Your task to perform on an android device: Go to calendar. Show me events next week Image 0: 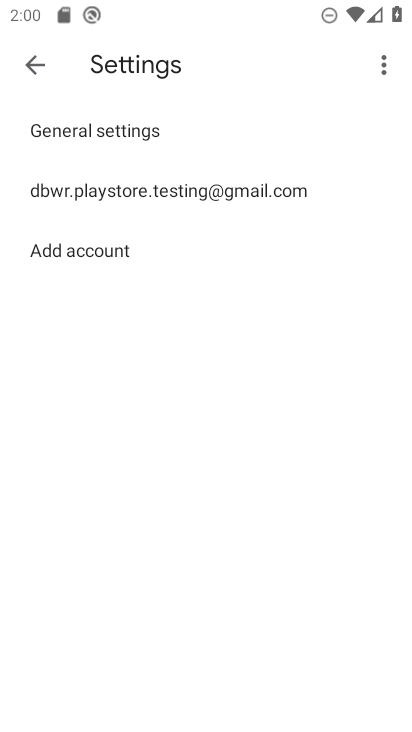
Step 0: press home button
Your task to perform on an android device: Go to calendar. Show me events next week Image 1: 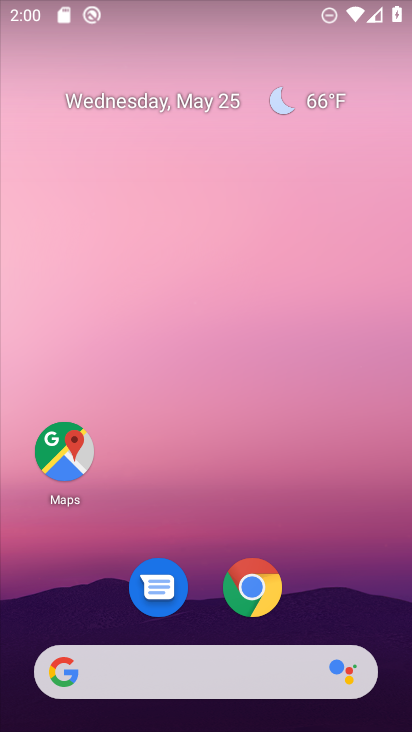
Step 1: drag from (346, 599) to (362, 227)
Your task to perform on an android device: Go to calendar. Show me events next week Image 2: 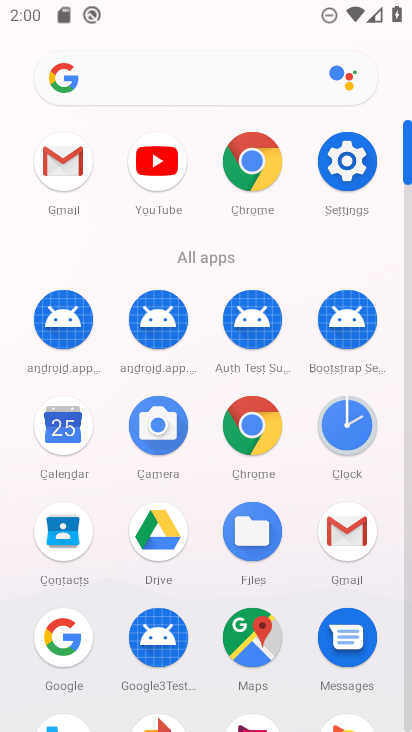
Step 2: click (357, 444)
Your task to perform on an android device: Go to calendar. Show me events next week Image 3: 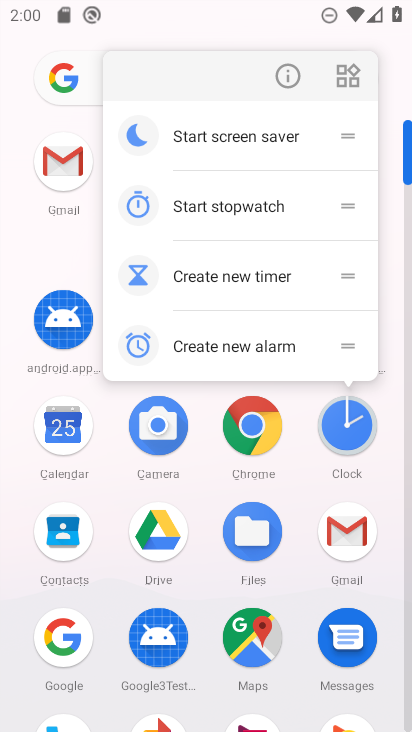
Step 3: click (348, 427)
Your task to perform on an android device: Go to calendar. Show me events next week Image 4: 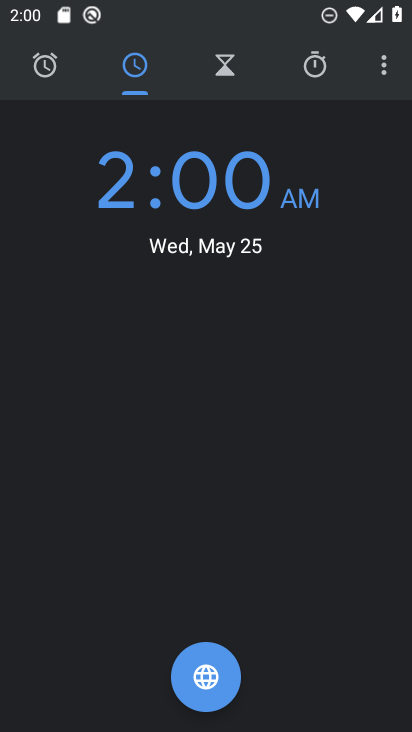
Step 4: press back button
Your task to perform on an android device: Go to calendar. Show me events next week Image 5: 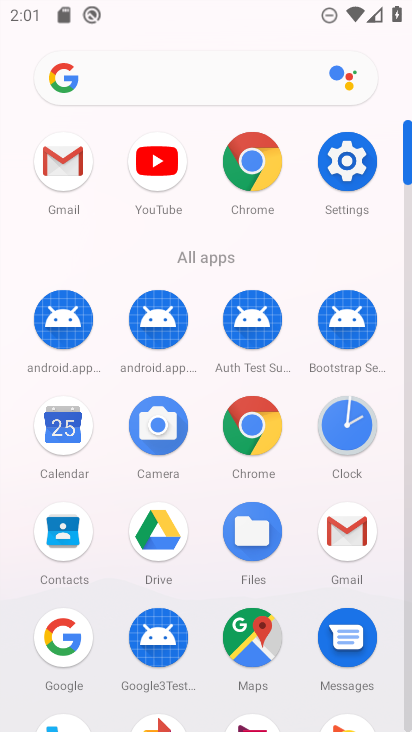
Step 5: click (73, 458)
Your task to perform on an android device: Go to calendar. Show me events next week Image 6: 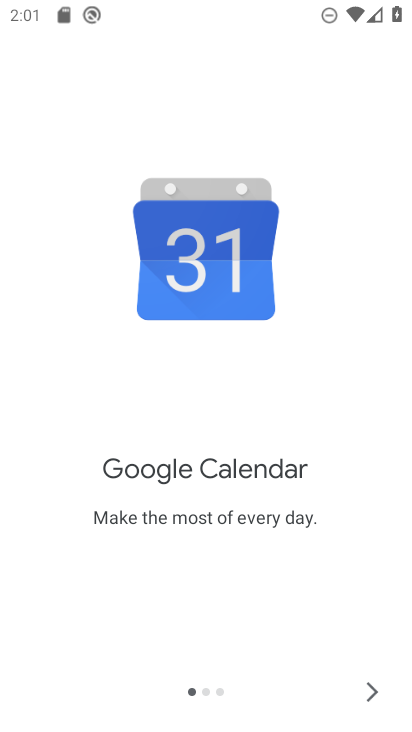
Step 6: click (371, 699)
Your task to perform on an android device: Go to calendar. Show me events next week Image 7: 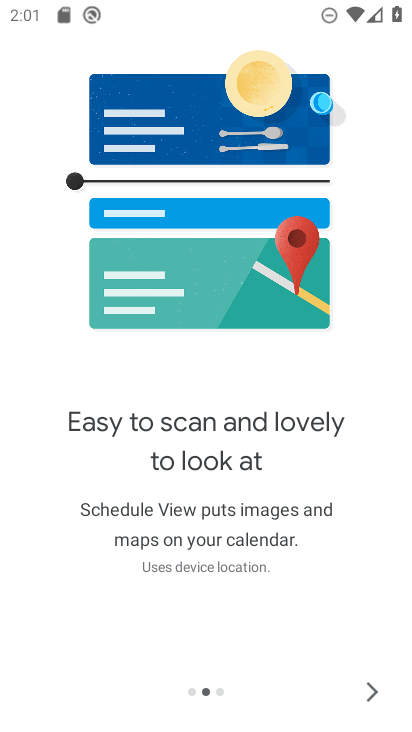
Step 7: click (375, 691)
Your task to perform on an android device: Go to calendar. Show me events next week Image 8: 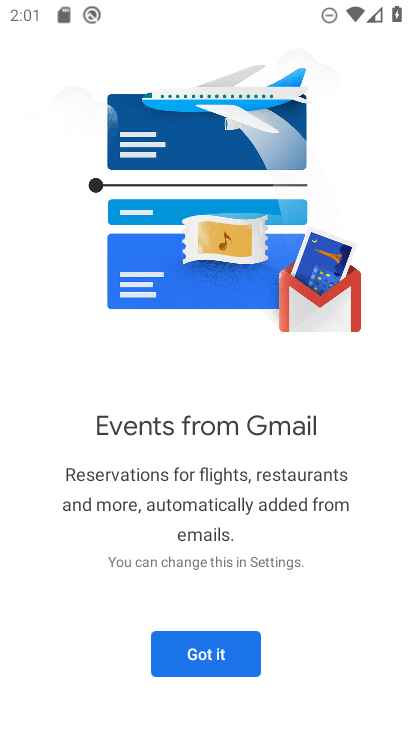
Step 8: click (184, 660)
Your task to perform on an android device: Go to calendar. Show me events next week Image 9: 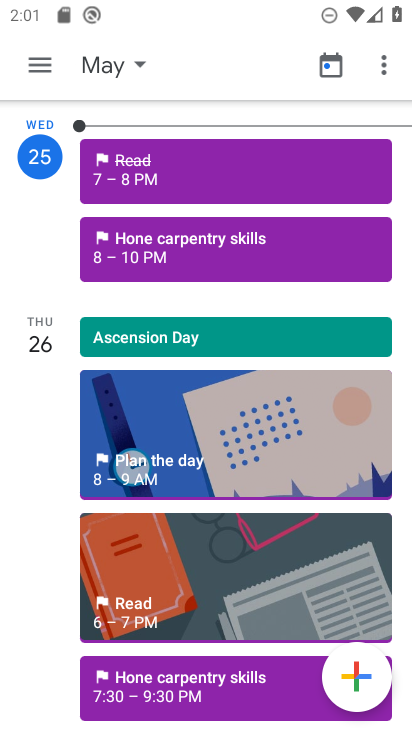
Step 9: click (135, 61)
Your task to perform on an android device: Go to calendar. Show me events next week Image 10: 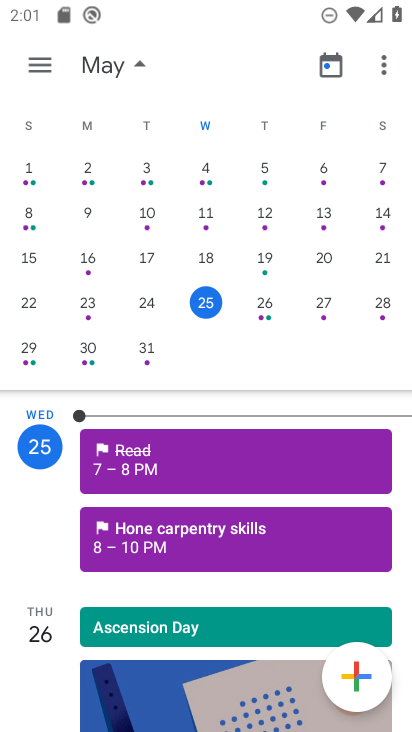
Step 10: click (80, 360)
Your task to perform on an android device: Go to calendar. Show me events next week Image 11: 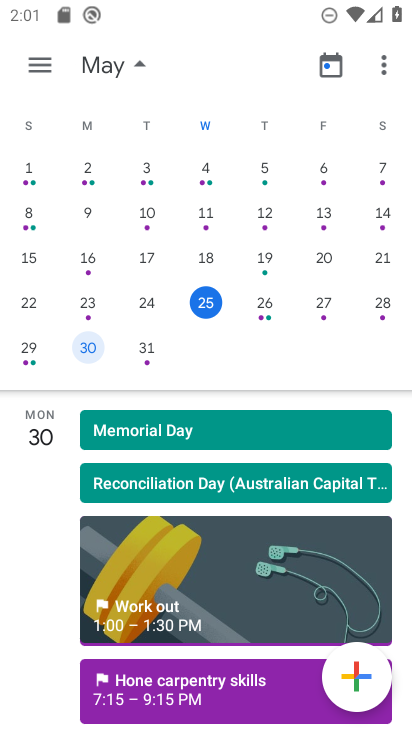
Step 11: task complete